Your task to perform on an android device: empty trash in google photos Image 0: 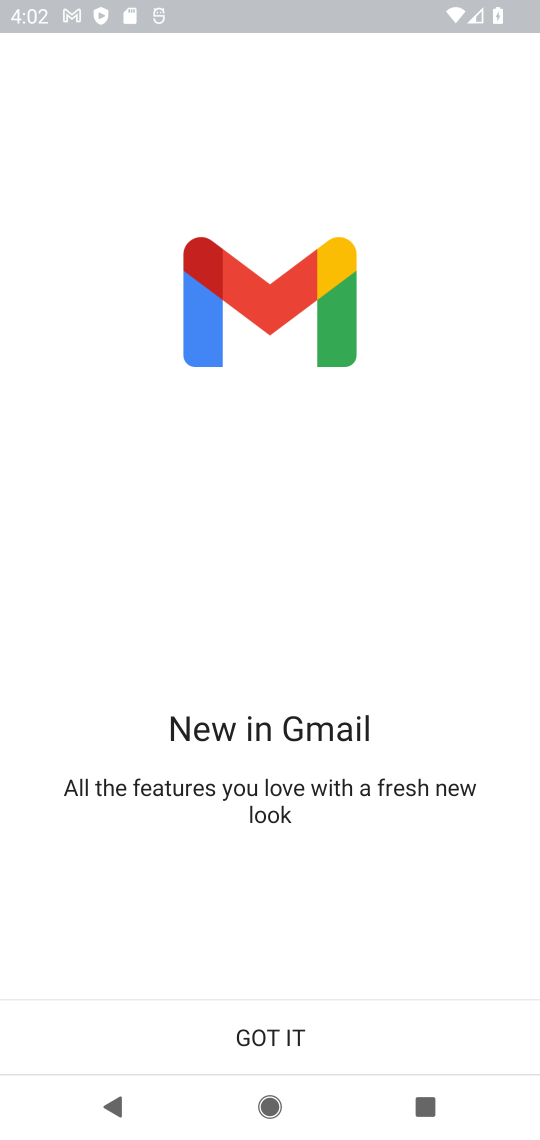
Step 0: press home button
Your task to perform on an android device: empty trash in google photos Image 1: 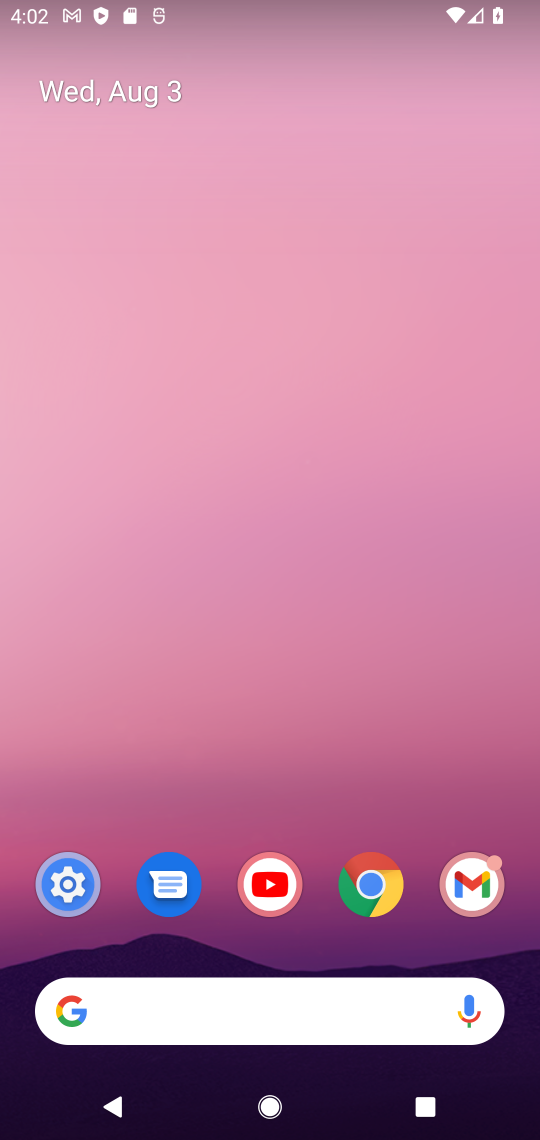
Step 1: drag from (196, 791) to (214, 90)
Your task to perform on an android device: empty trash in google photos Image 2: 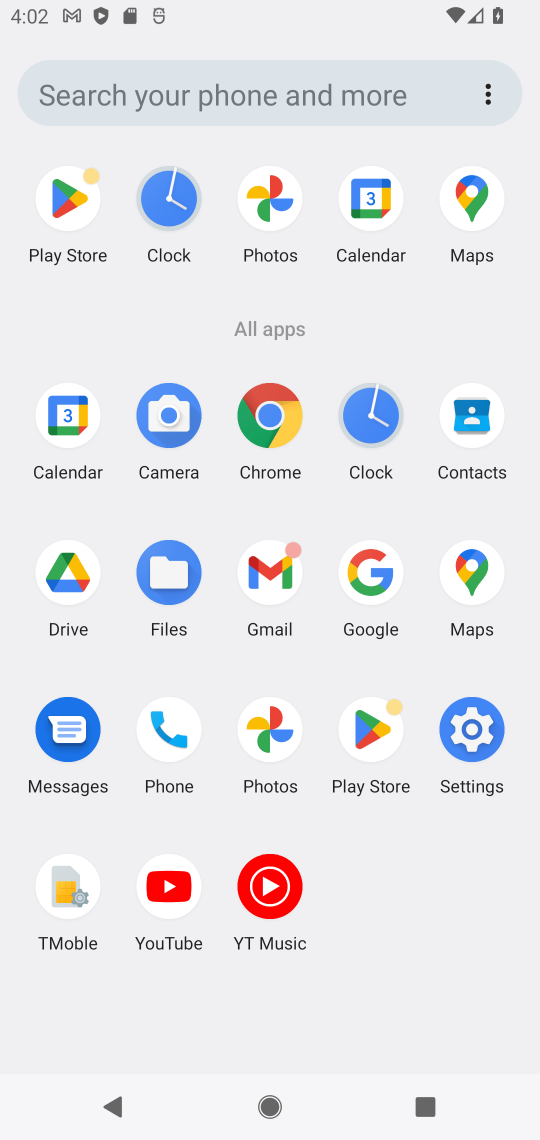
Step 2: click (274, 751)
Your task to perform on an android device: empty trash in google photos Image 3: 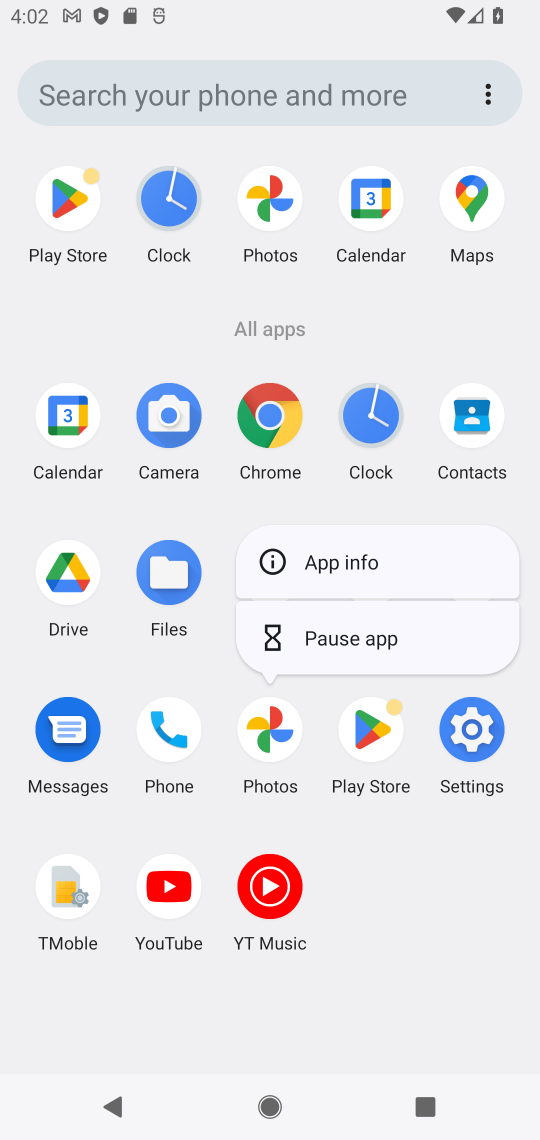
Step 3: click (262, 733)
Your task to perform on an android device: empty trash in google photos Image 4: 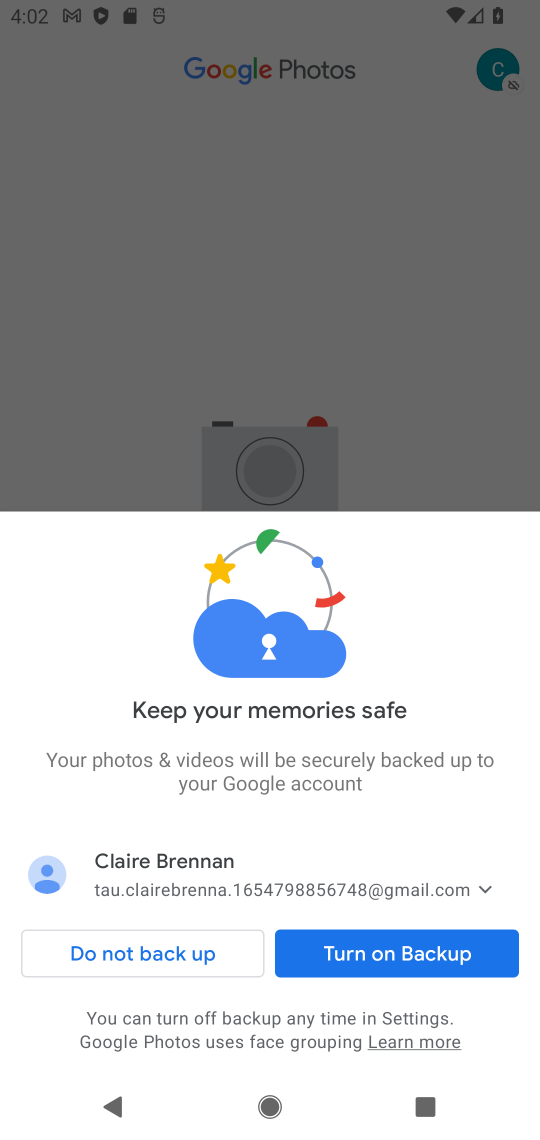
Step 4: click (435, 956)
Your task to perform on an android device: empty trash in google photos Image 5: 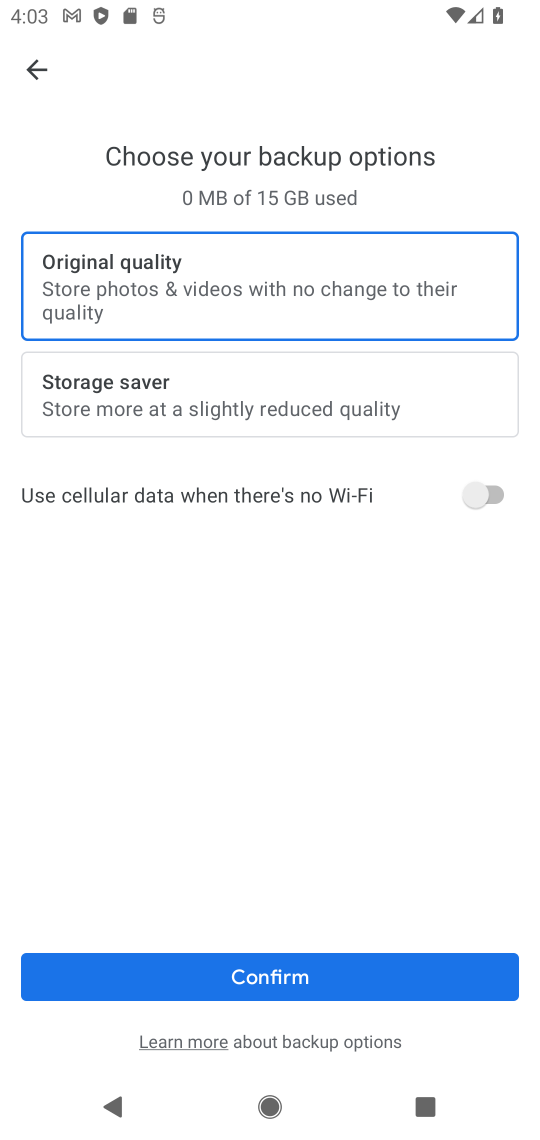
Step 5: click (250, 990)
Your task to perform on an android device: empty trash in google photos Image 6: 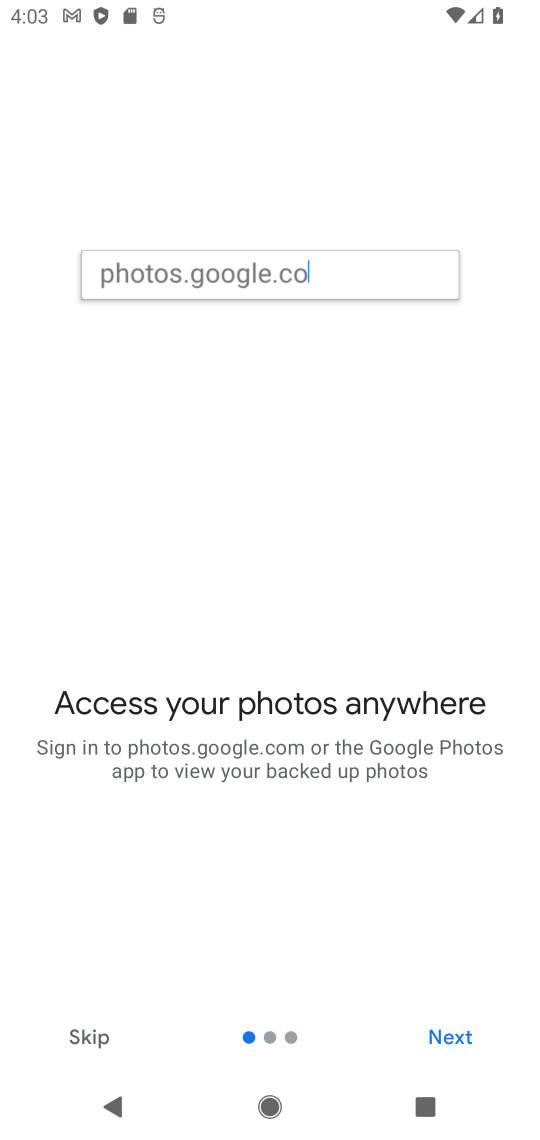
Step 6: click (443, 1032)
Your task to perform on an android device: empty trash in google photos Image 7: 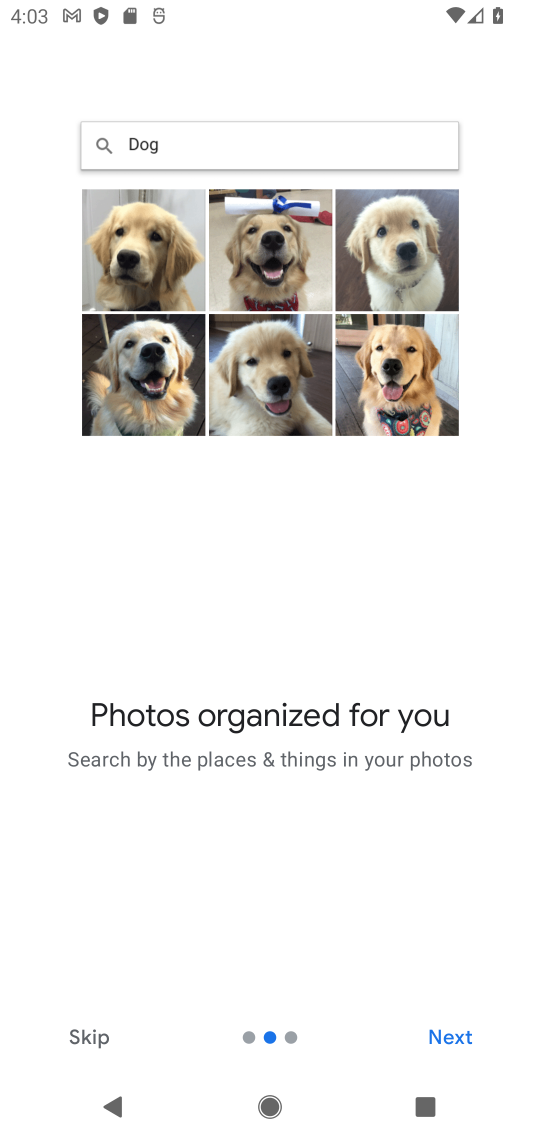
Step 7: click (443, 1032)
Your task to perform on an android device: empty trash in google photos Image 8: 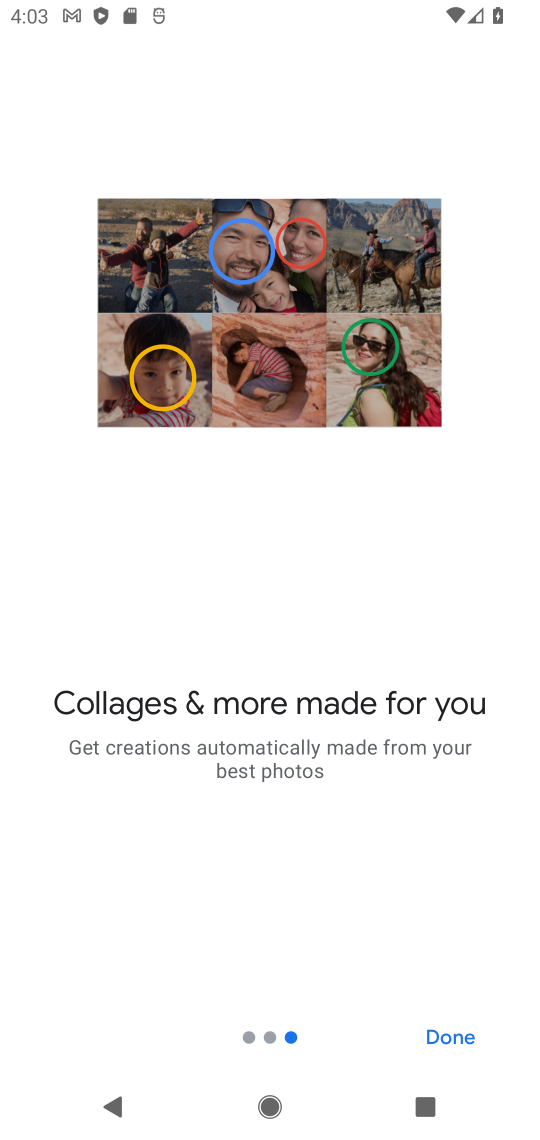
Step 8: click (443, 1031)
Your task to perform on an android device: empty trash in google photos Image 9: 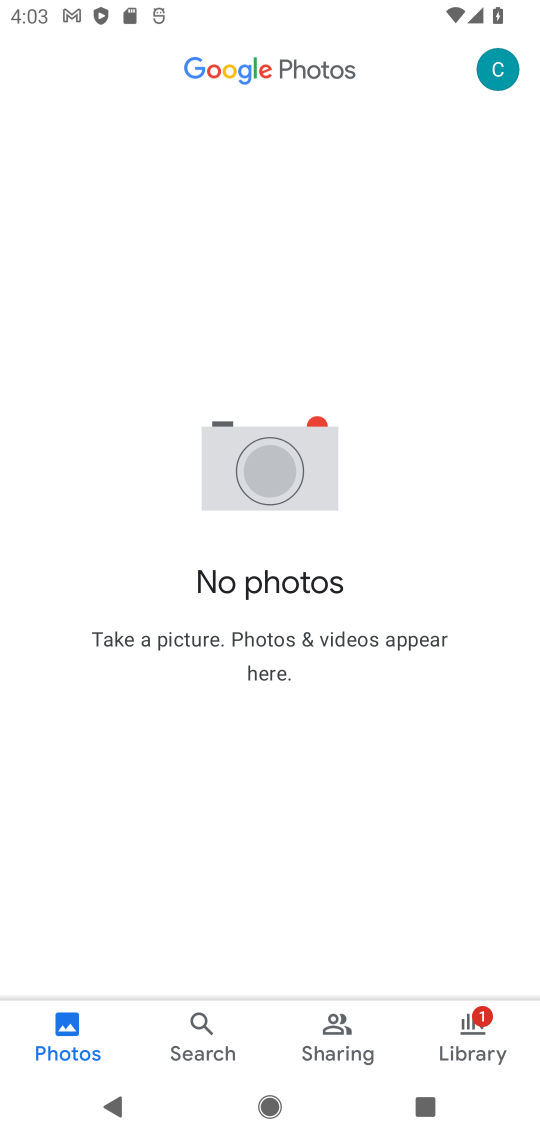
Step 9: click (479, 69)
Your task to perform on an android device: empty trash in google photos Image 10: 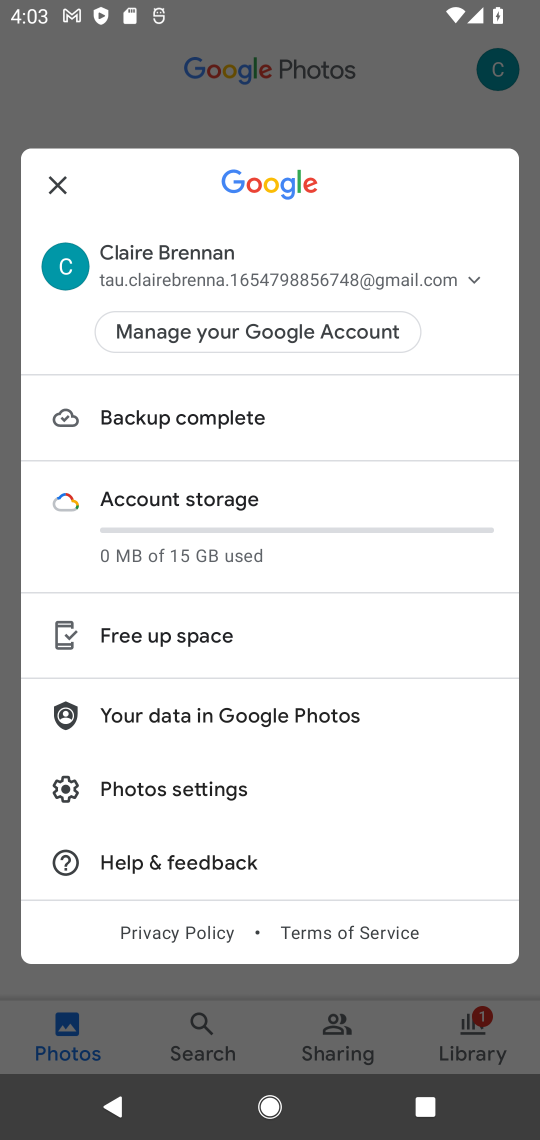
Step 10: click (108, 790)
Your task to perform on an android device: empty trash in google photos Image 11: 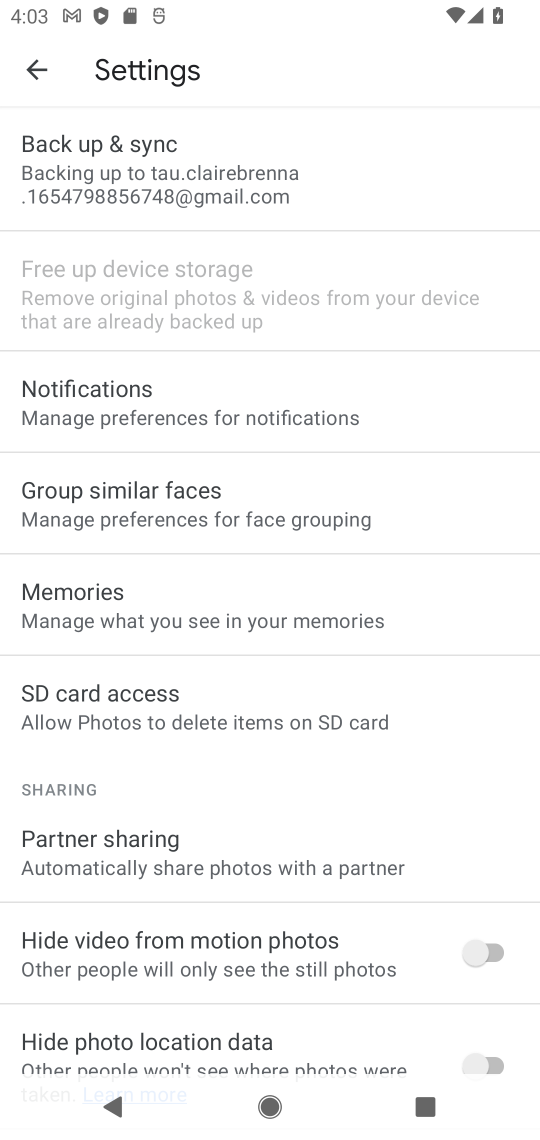
Step 11: click (51, 65)
Your task to perform on an android device: empty trash in google photos Image 12: 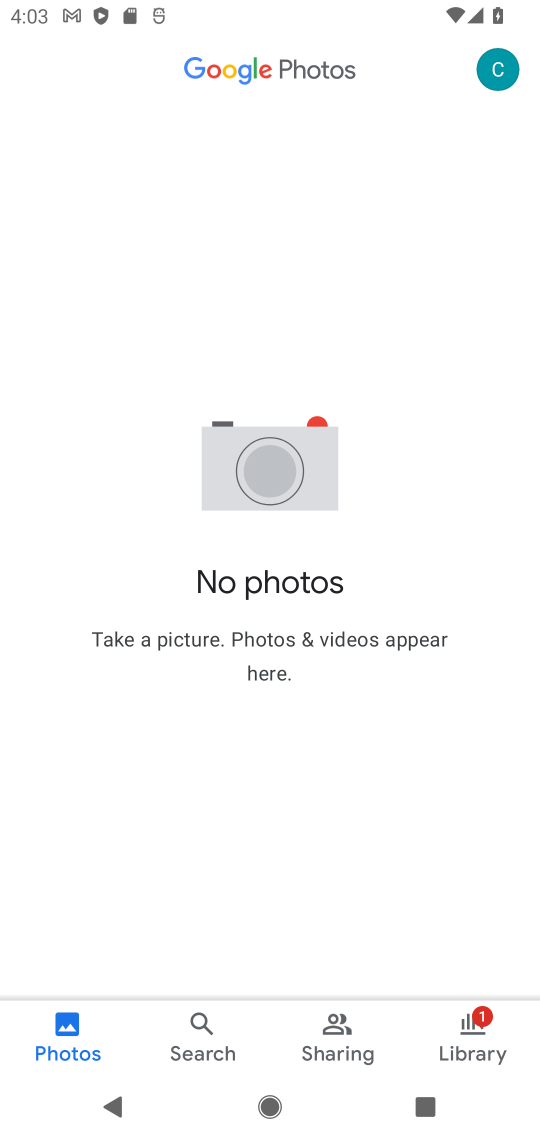
Step 12: click (477, 72)
Your task to perform on an android device: empty trash in google photos Image 13: 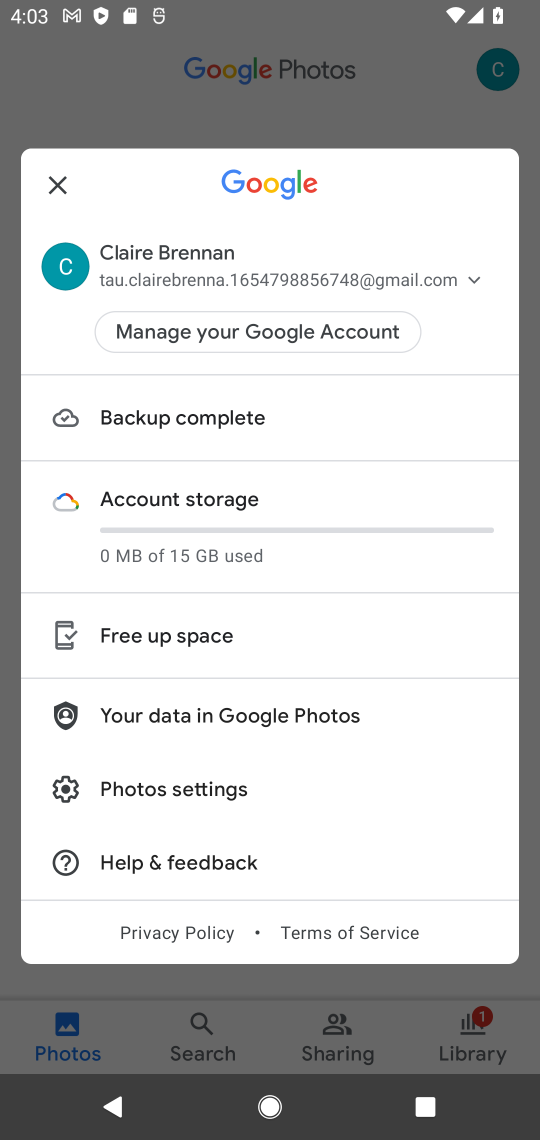
Step 13: click (65, 270)
Your task to perform on an android device: empty trash in google photos Image 14: 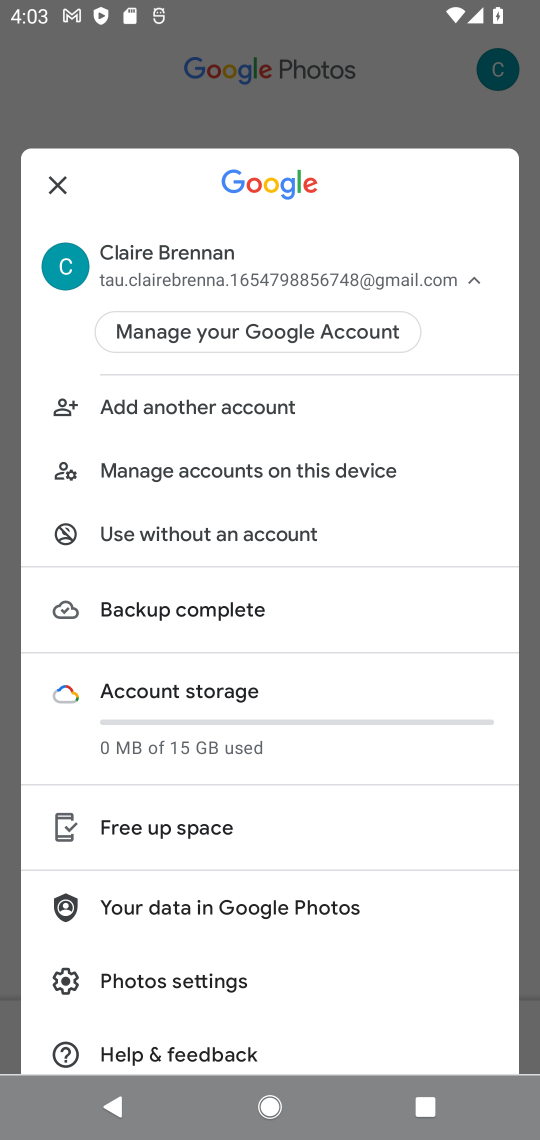
Step 14: drag from (176, 845) to (205, 255)
Your task to perform on an android device: empty trash in google photos Image 15: 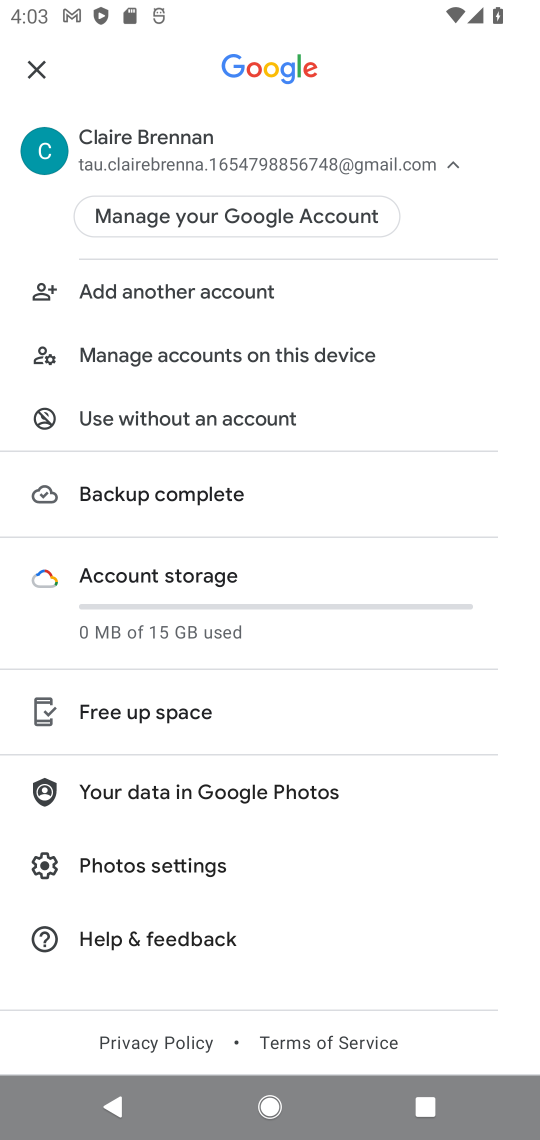
Step 15: click (144, 861)
Your task to perform on an android device: empty trash in google photos Image 16: 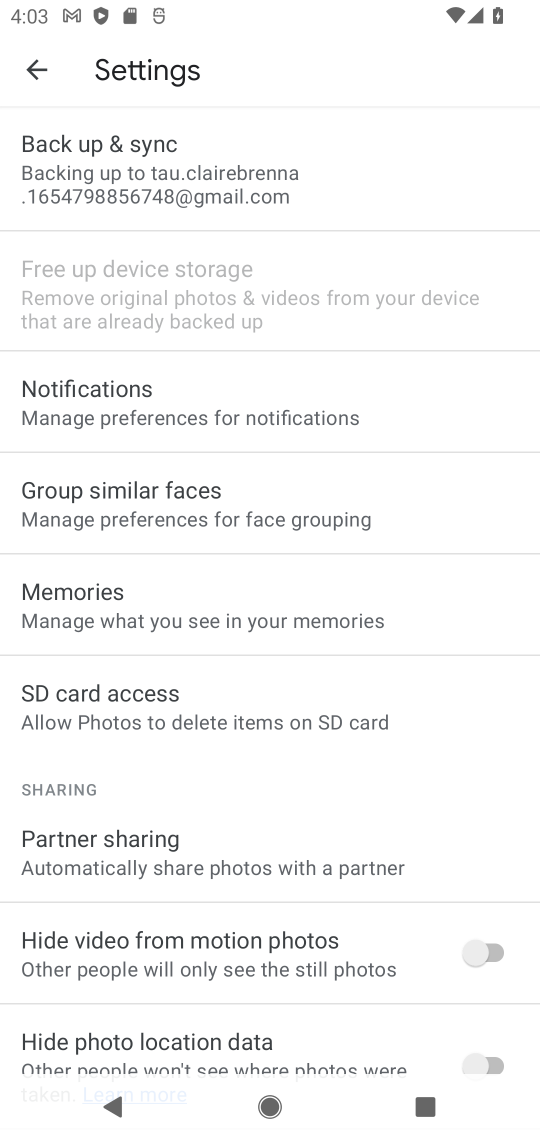
Step 16: task complete